Your task to perform on an android device: open wifi settings Image 0: 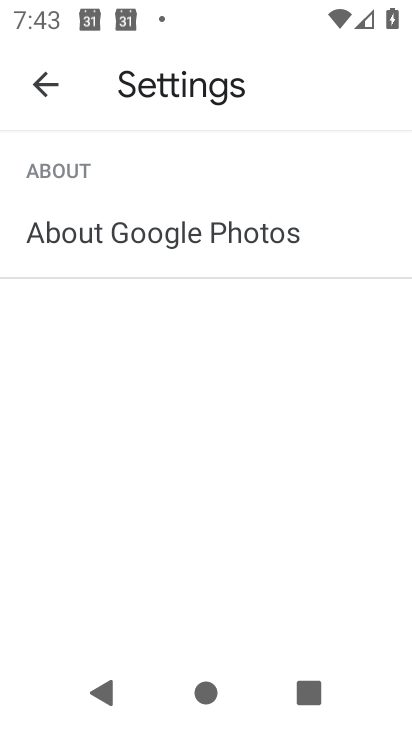
Step 0: press home button
Your task to perform on an android device: open wifi settings Image 1: 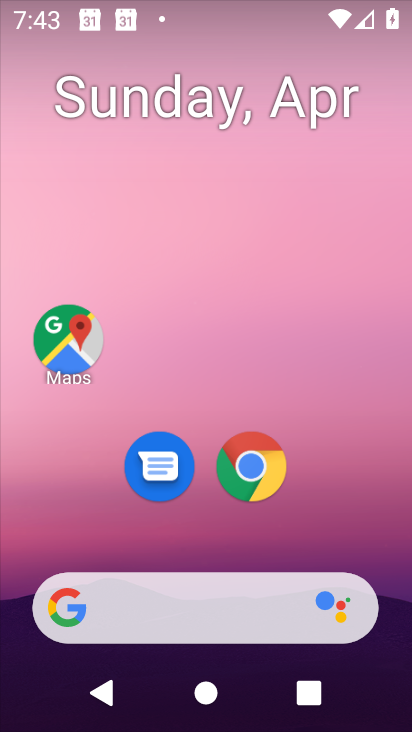
Step 1: drag from (206, 537) to (201, 6)
Your task to perform on an android device: open wifi settings Image 2: 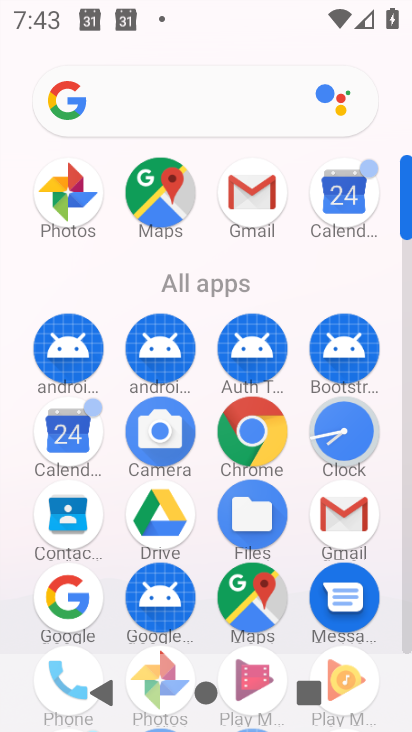
Step 2: drag from (168, 532) to (255, 10)
Your task to perform on an android device: open wifi settings Image 3: 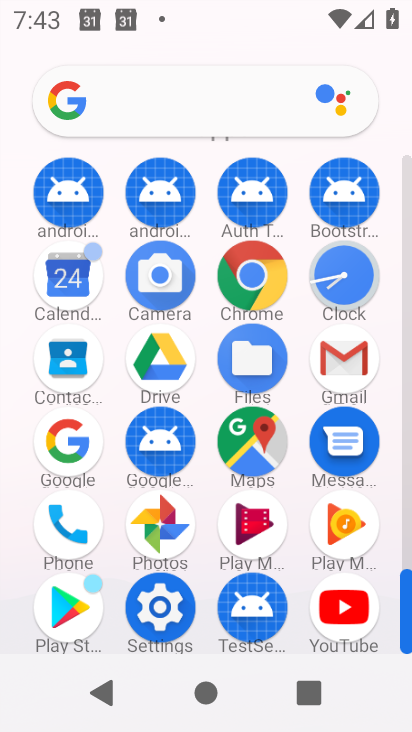
Step 3: click (157, 591)
Your task to perform on an android device: open wifi settings Image 4: 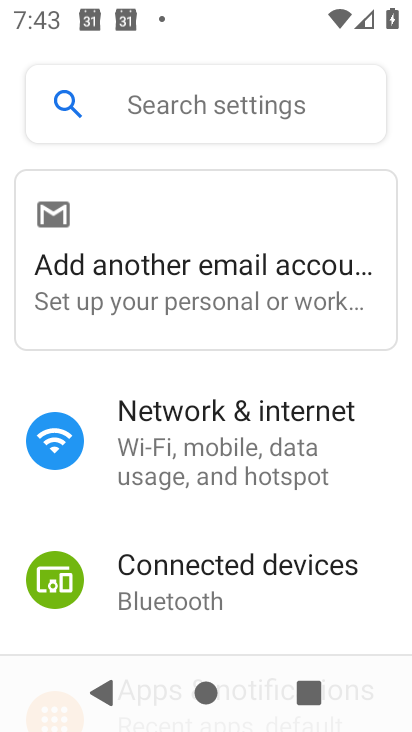
Step 4: click (223, 456)
Your task to perform on an android device: open wifi settings Image 5: 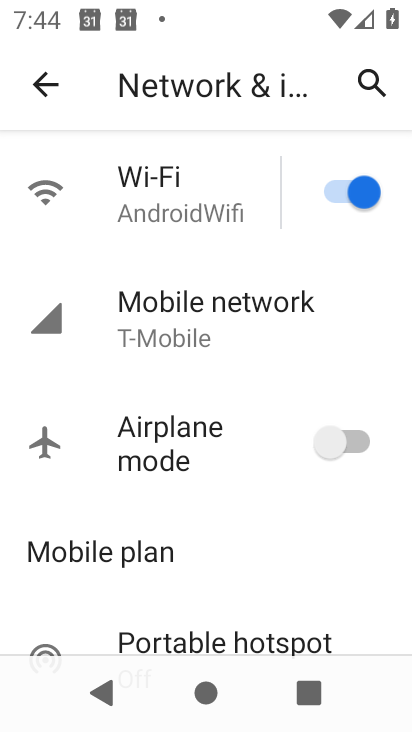
Step 5: click (148, 207)
Your task to perform on an android device: open wifi settings Image 6: 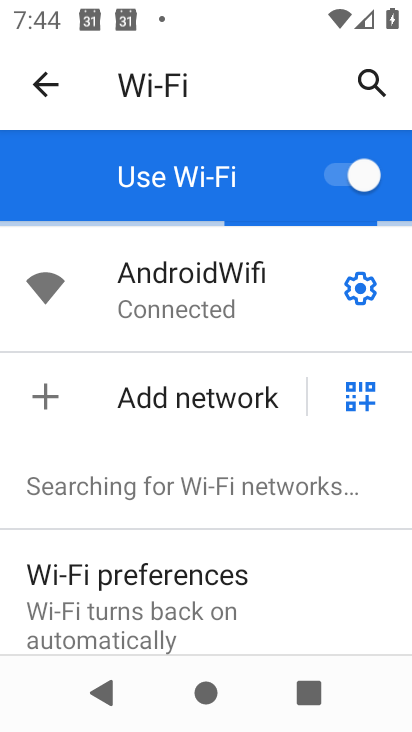
Step 6: task complete